Your task to perform on an android device: open app "Move to iOS" Image 0: 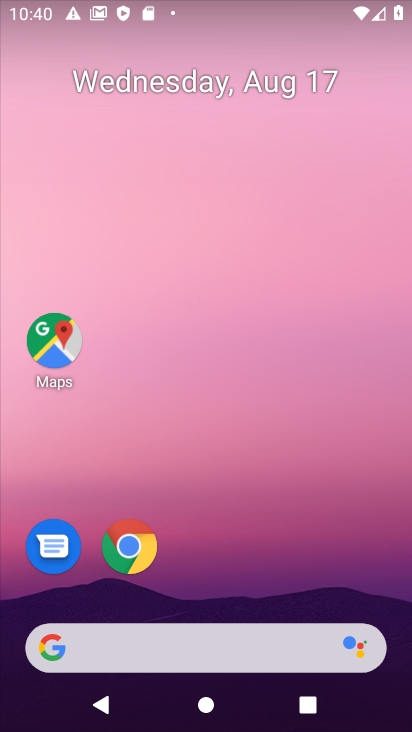
Step 0: drag from (217, 622) to (237, 33)
Your task to perform on an android device: open app "Move to iOS" Image 1: 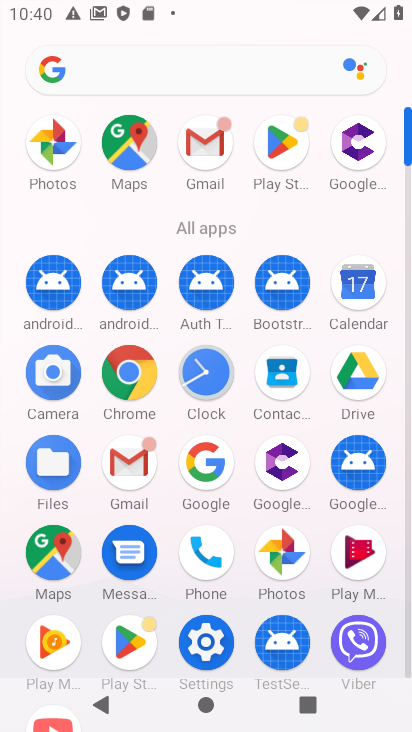
Step 1: click (133, 619)
Your task to perform on an android device: open app "Move to iOS" Image 2: 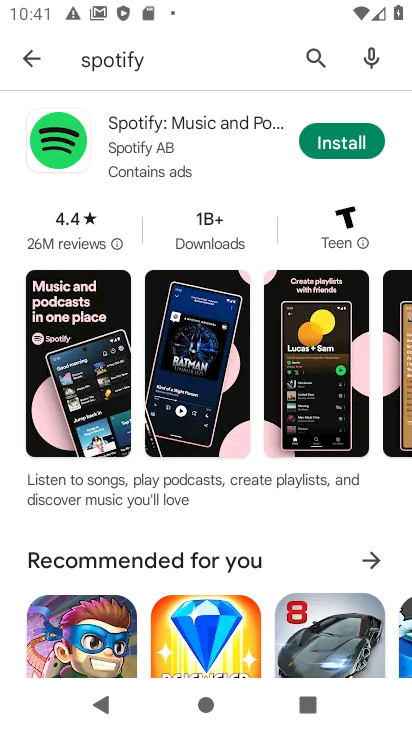
Step 2: click (28, 51)
Your task to perform on an android device: open app "Move to iOS" Image 3: 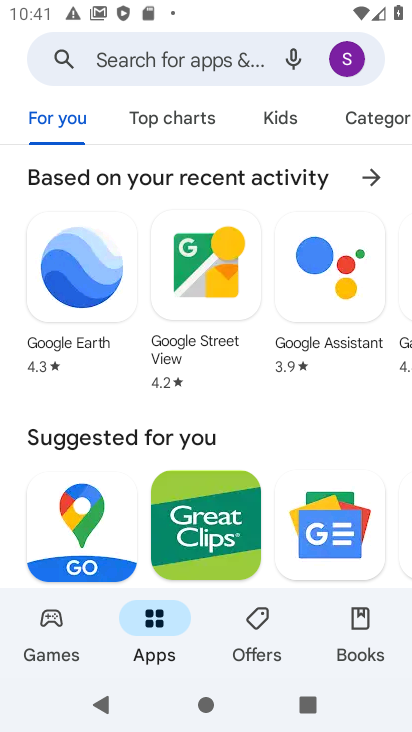
Step 3: click (111, 72)
Your task to perform on an android device: open app "Move to iOS" Image 4: 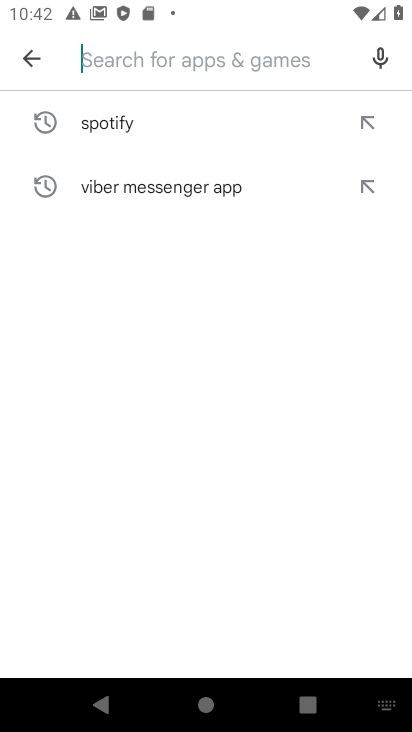
Step 4: type "Move to iOS"
Your task to perform on an android device: open app "Move to iOS" Image 5: 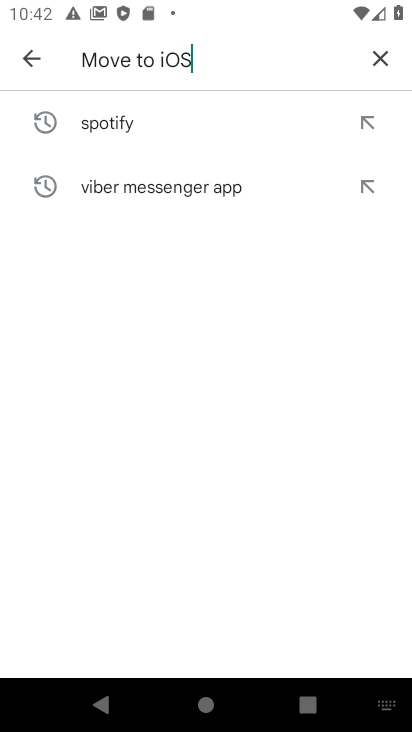
Step 5: type ""
Your task to perform on an android device: open app "Move to iOS" Image 6: 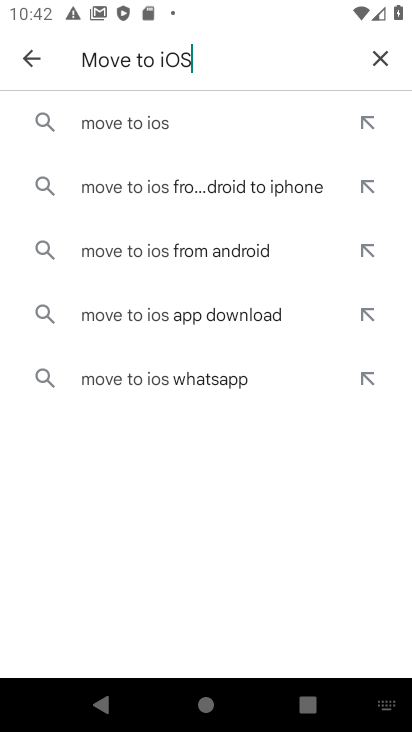
Step 6: click (121, 114)
Your task to perform on an android device: open app "Move to iOS" Image 7: 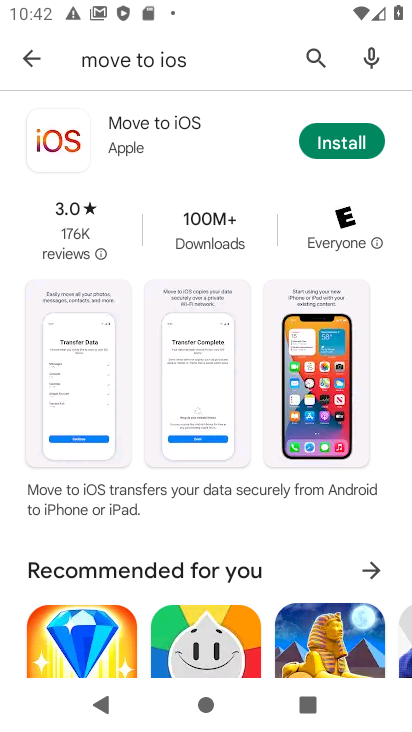
Step 7: task complete